Your task to perform on an android device: Add "alienware area 51" to the cart on newegg.com, then select checkout. Image 0: 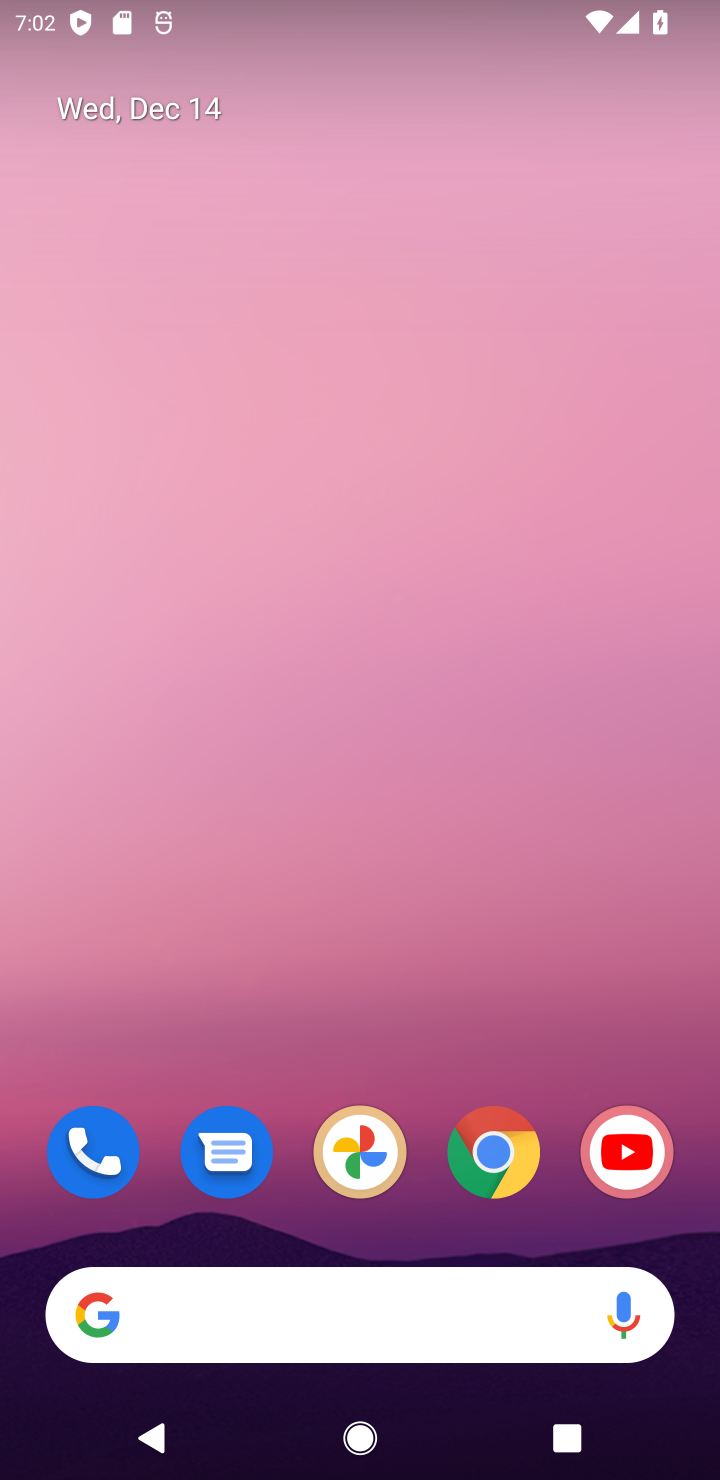
Step 0: click (495, 1151)
Your task to perform on an android device: Add "alienware area 51" to the cart on newegg.com, then select checkout. Image 1: 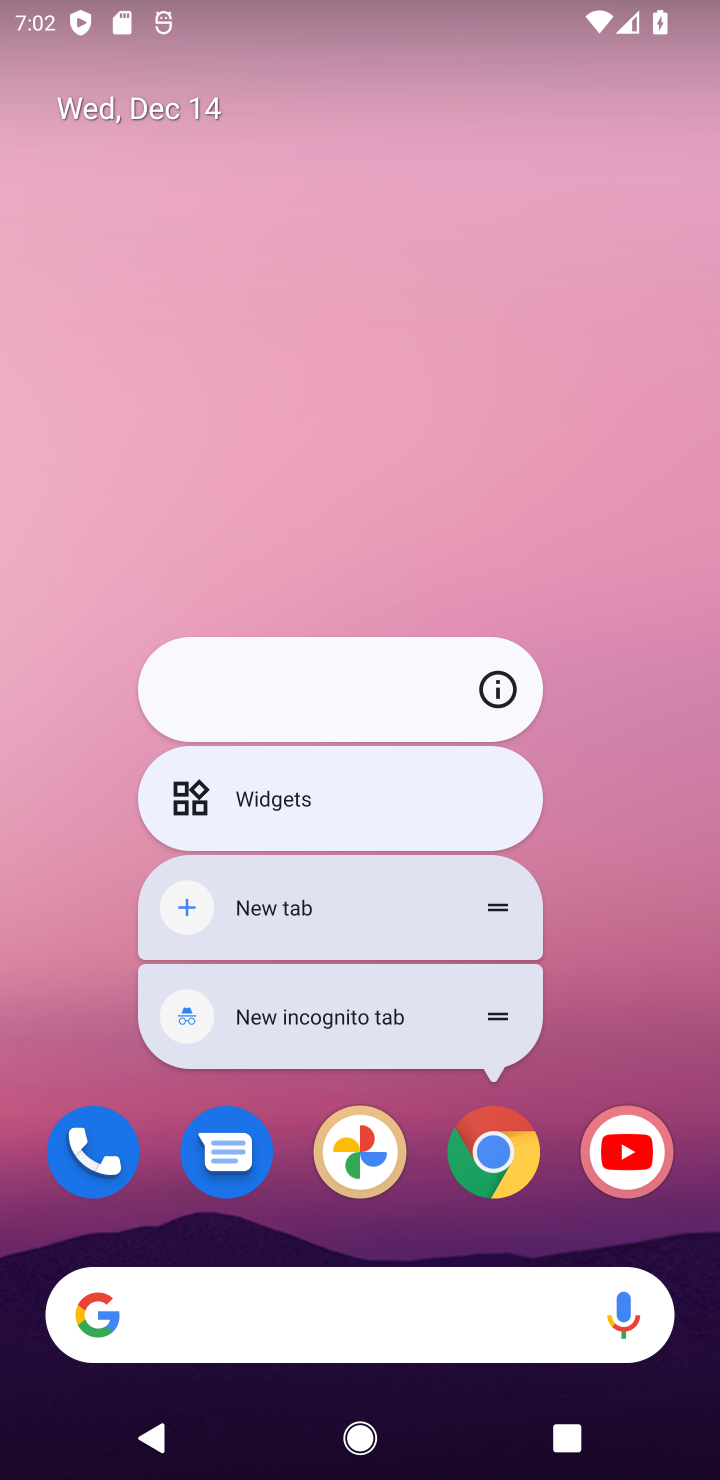
Step 1: click (495, 1151)
Your task to perform on an android device: Add "alienware area 51" to the cart on newegg.com, then select checkout. Image 2: 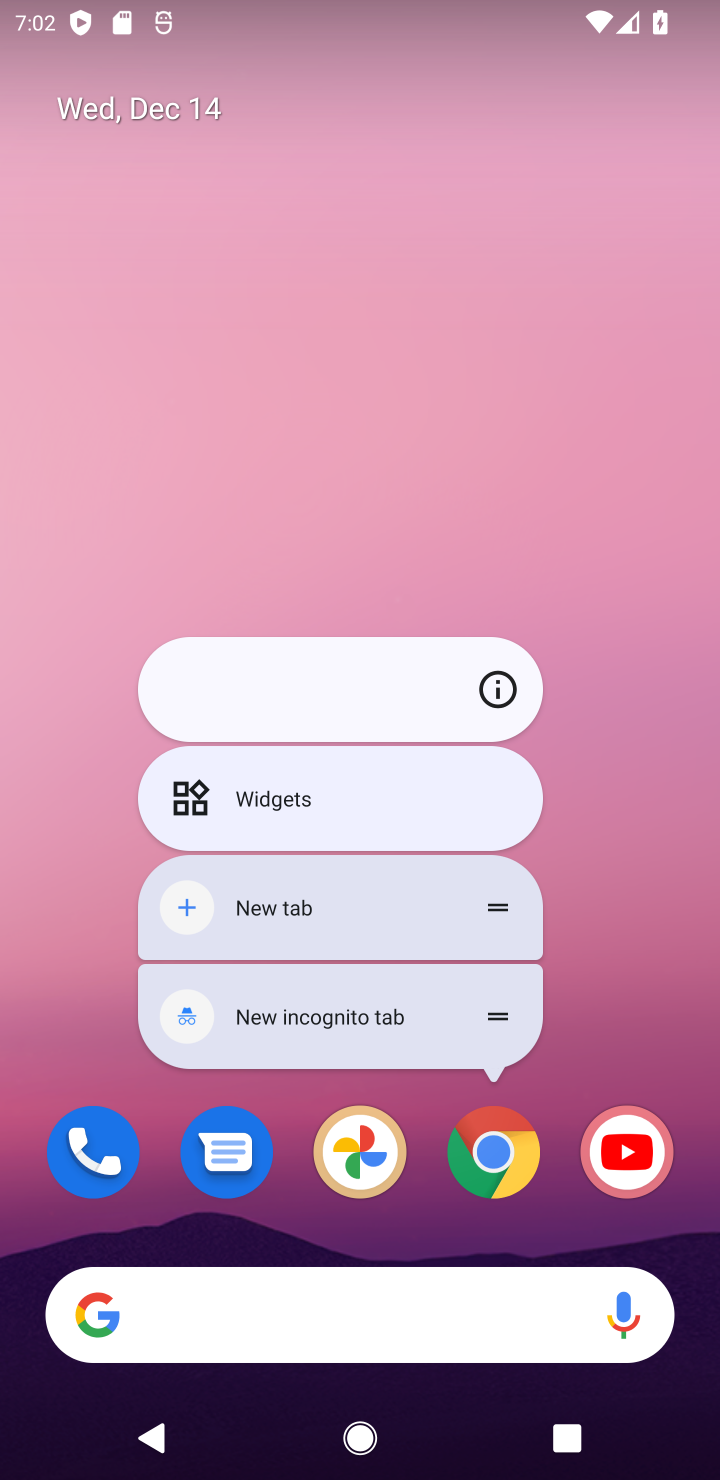
Step 2: click (582, 1077)
Your task to perform on an android device: Add "alienware area 51" to the cart on newegg.com, then select checkout. Image 3: 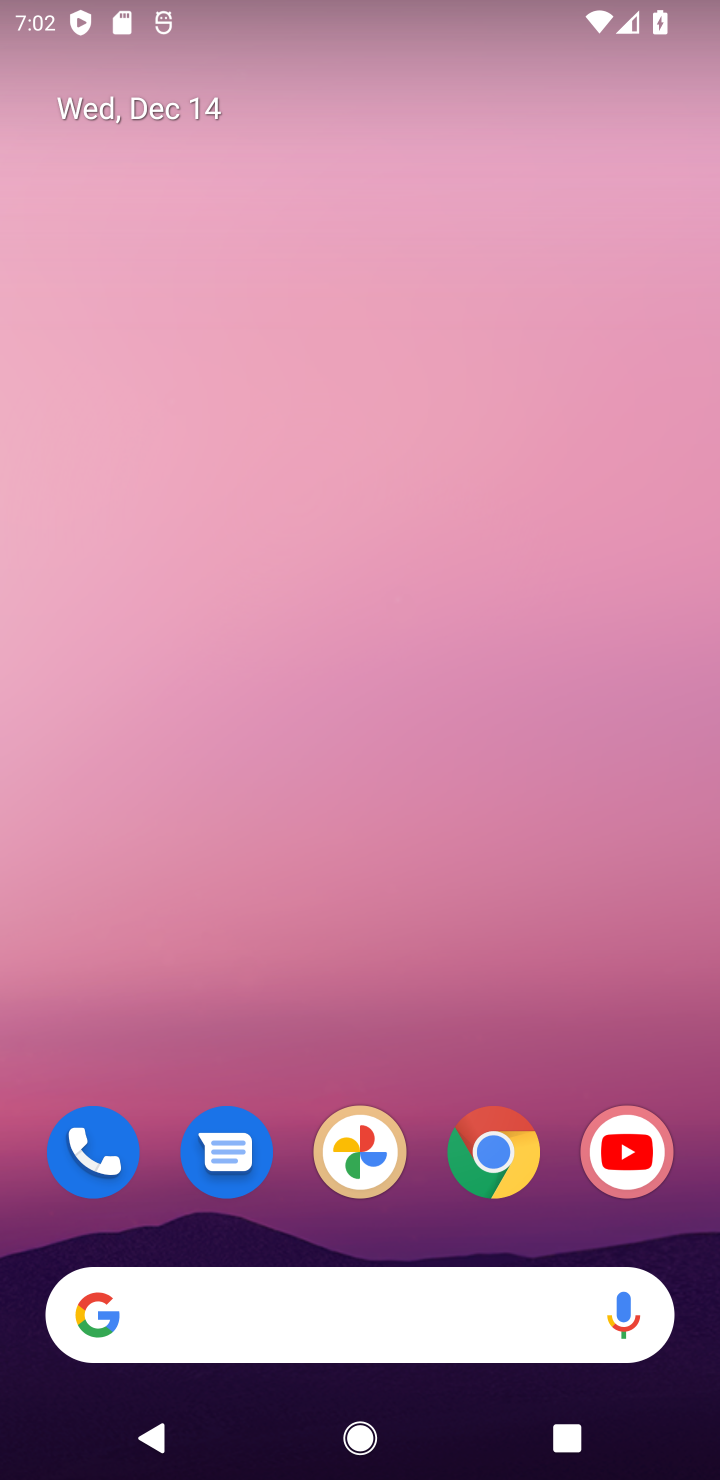
Step 3: click (505, 1150)
Your task to perform on an android device: Add "alienware area 51" to the cart on newegg.com, then select checkout. Image 4: 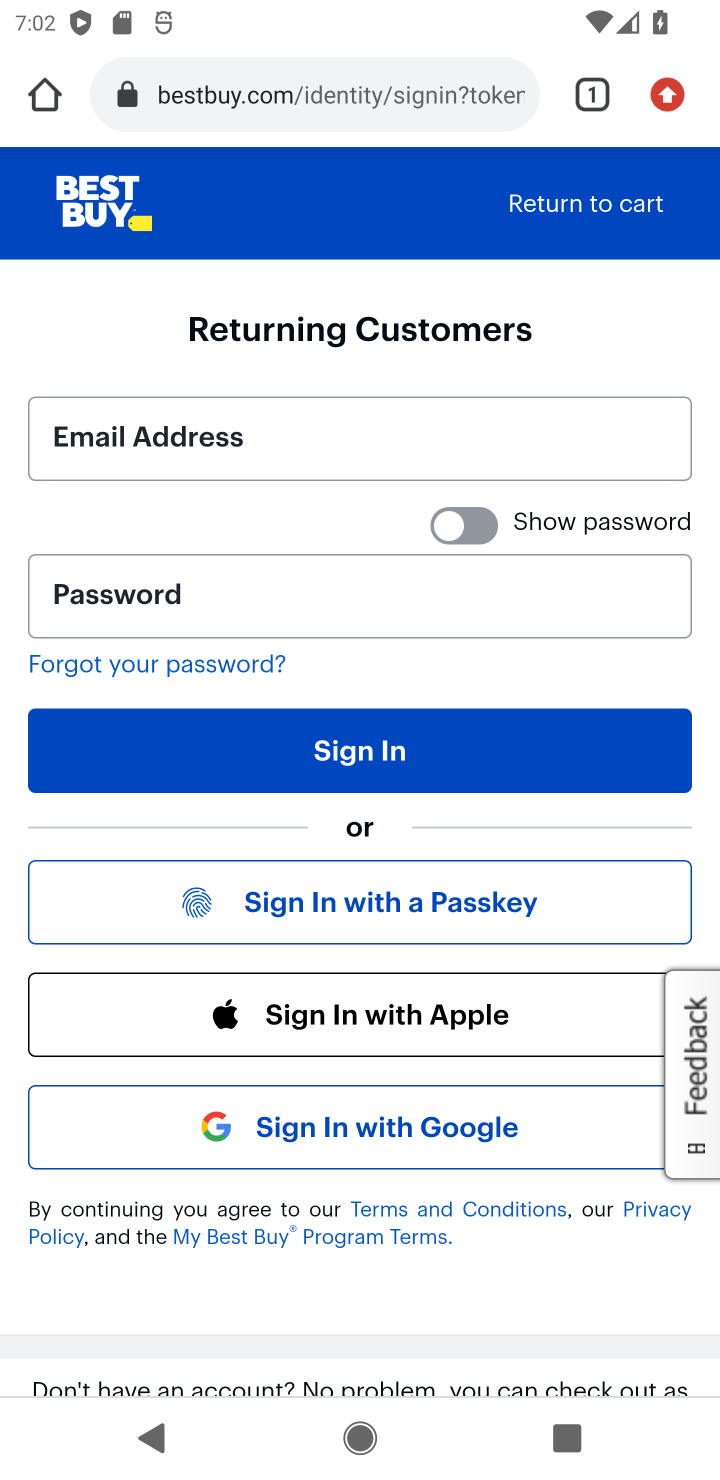
Step 4: click (304, 99)
Your task to perform on an android device: Add "alienware area 51" to the cart on newegg.com, then select checkout. Image 5: 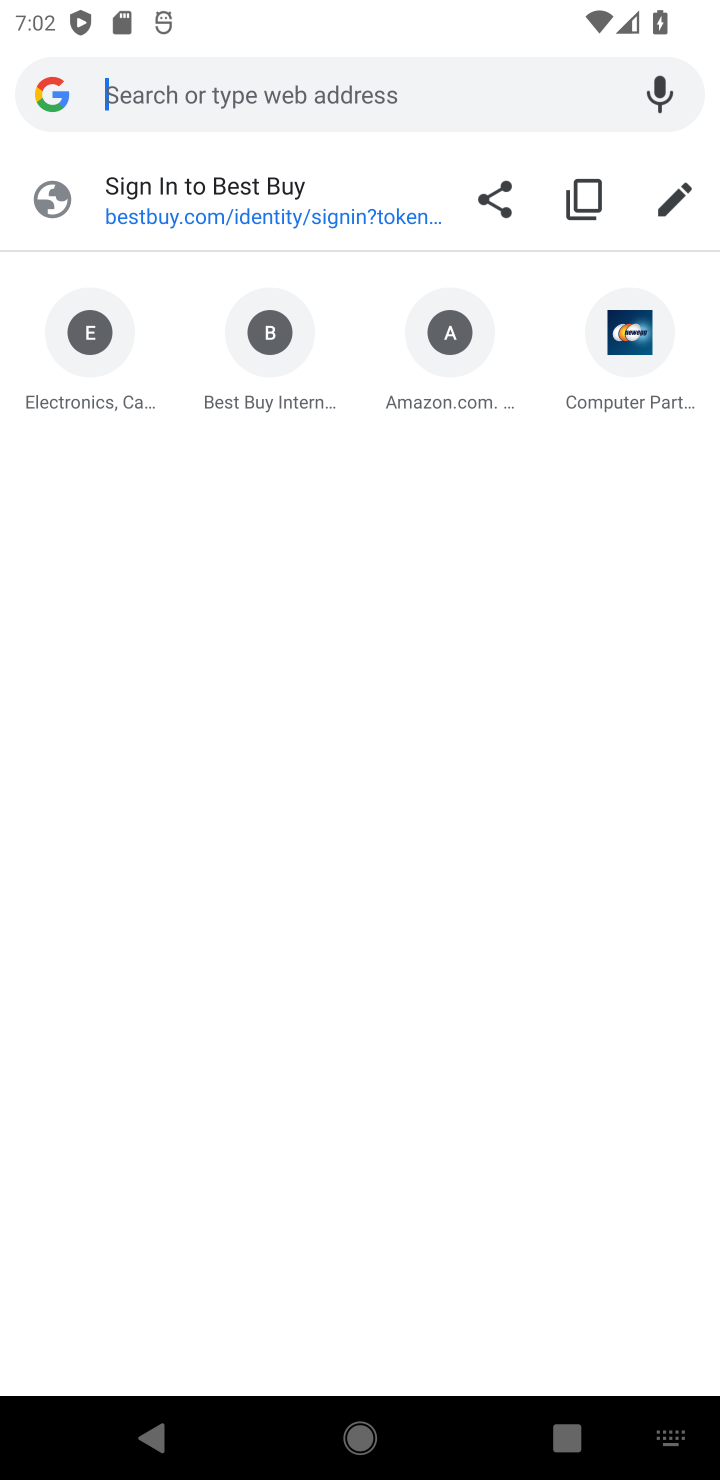
Step 5: click (615, 387)
Your task to perform on an android device: Add "alienware area 51" to the cart on newegg.com, then select checkout. Image 6: 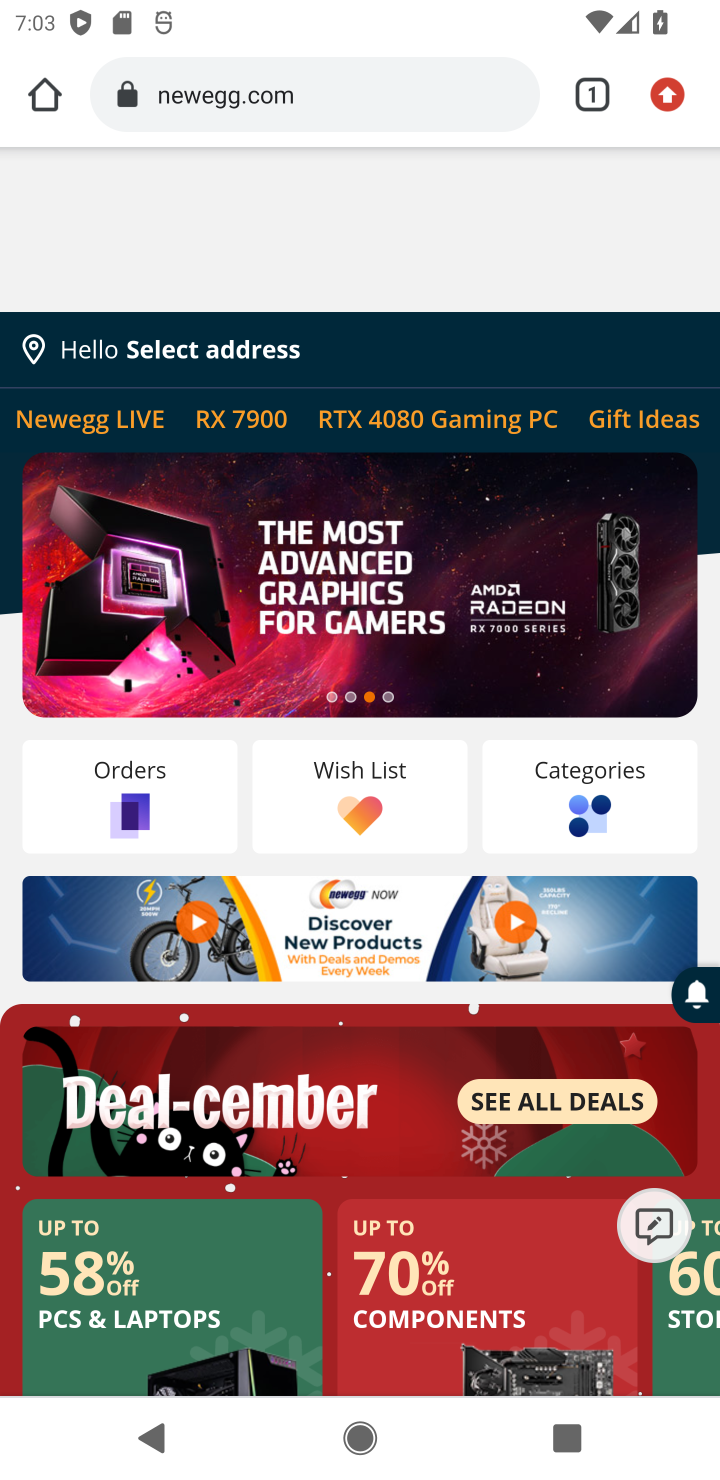
Step 6: click (155, 278)
Your task to perform on an android device: Add "alienware area 51" to the cart on newegg.com, then select checkout. Image 7: 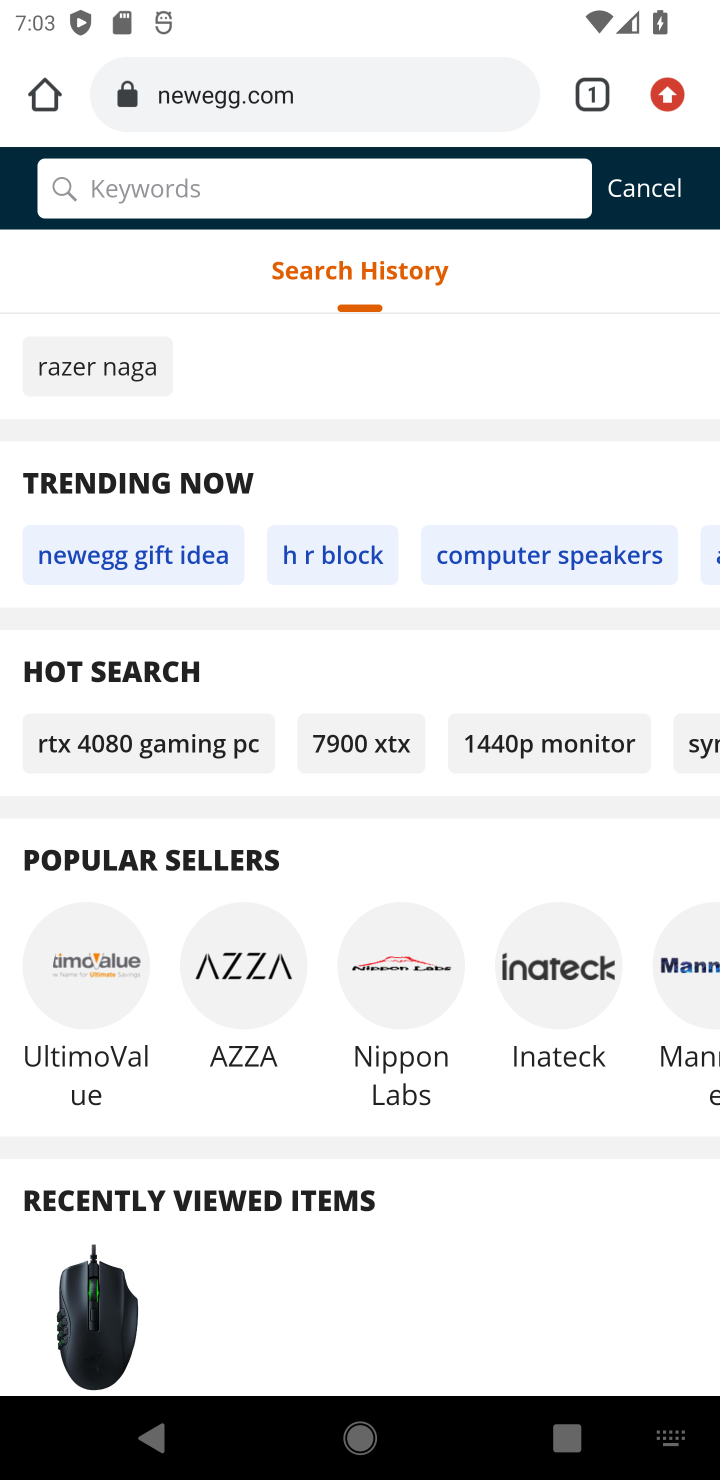
Step 7: type "alienware area 51"
Your task to perform on an android device: Add "alienware area 51" to the cart on newegg.com, then select checkout. Image 8: 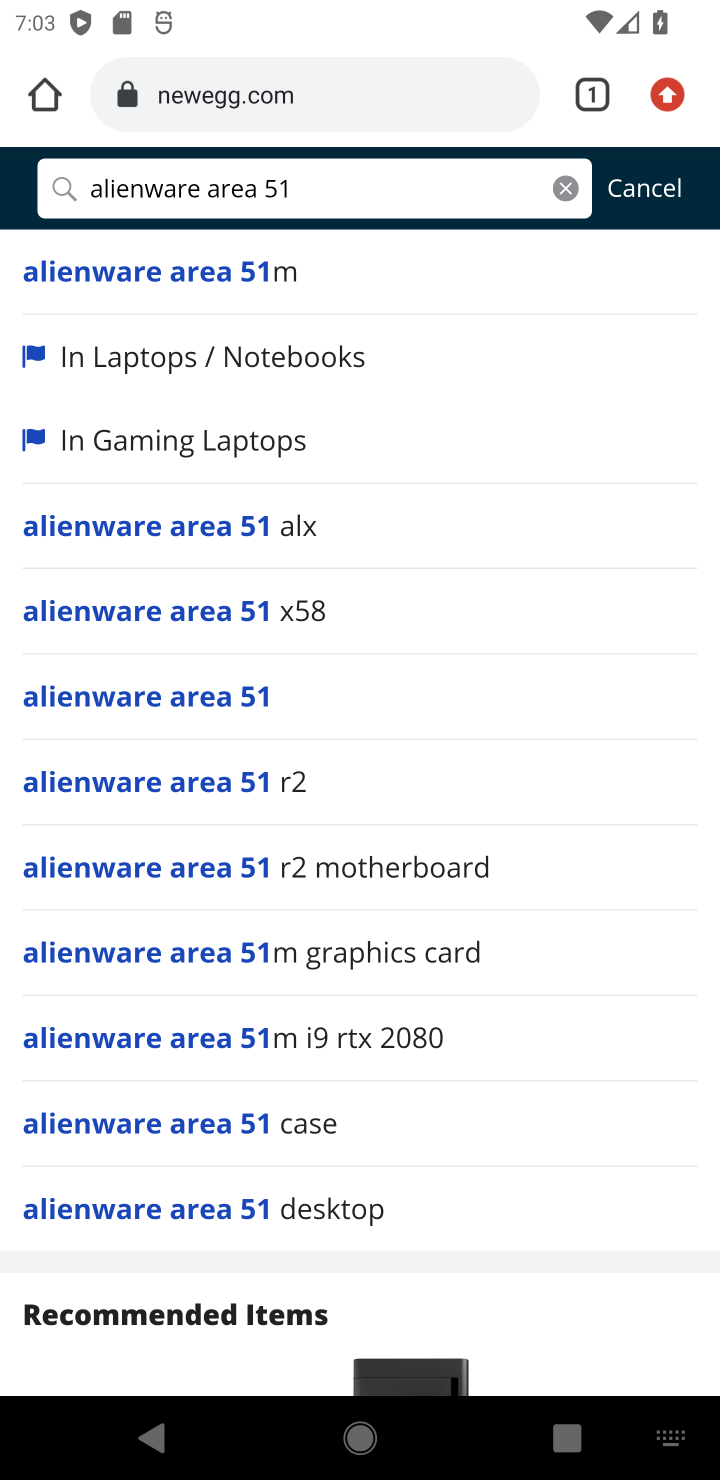
Step 8: click (158, 283)
Your task to perform on an android device: Add "alienware area 51" to the cart on newegg.com, then select checkout. Image 9: 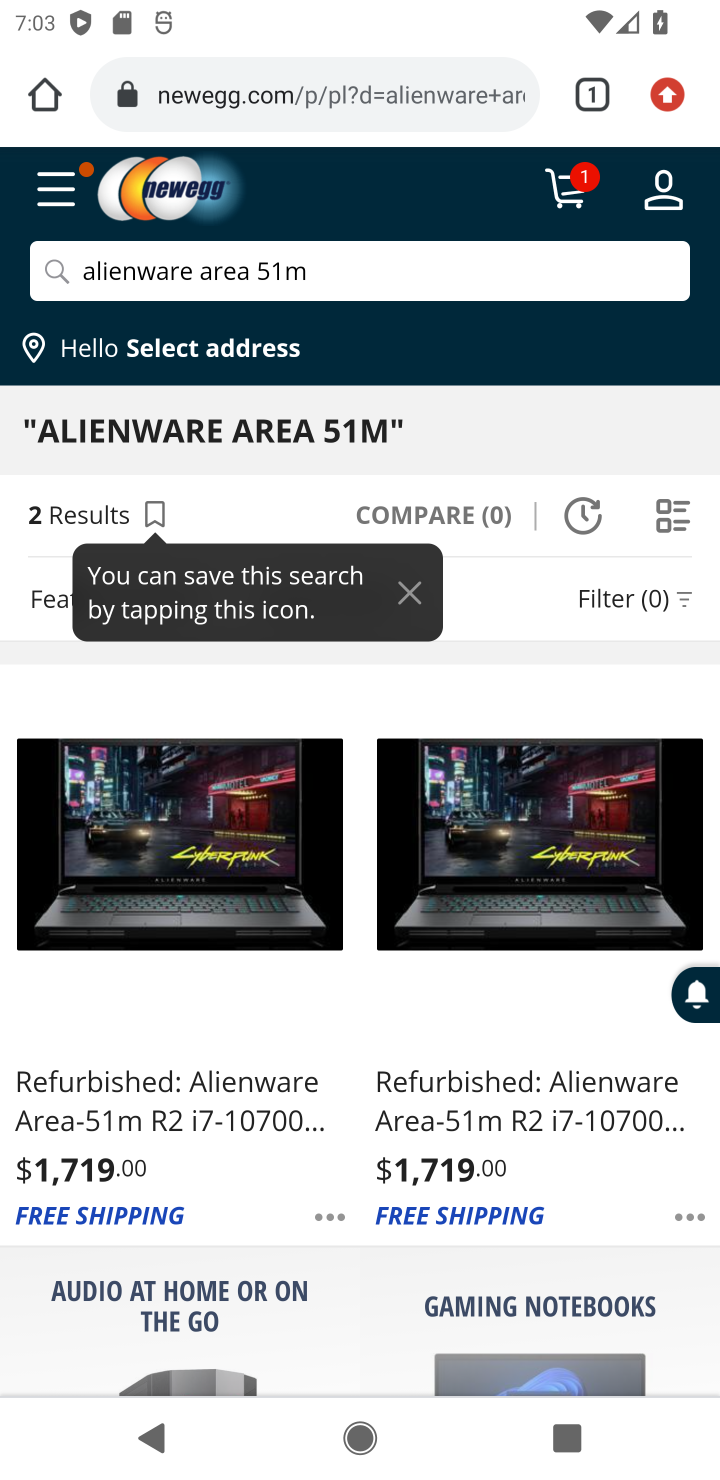
Step 9: click (177, 1124)
Your task to perform on an android device: Add "alienware area 51" to the cart on newegg.com, then select checkout. Image 10: 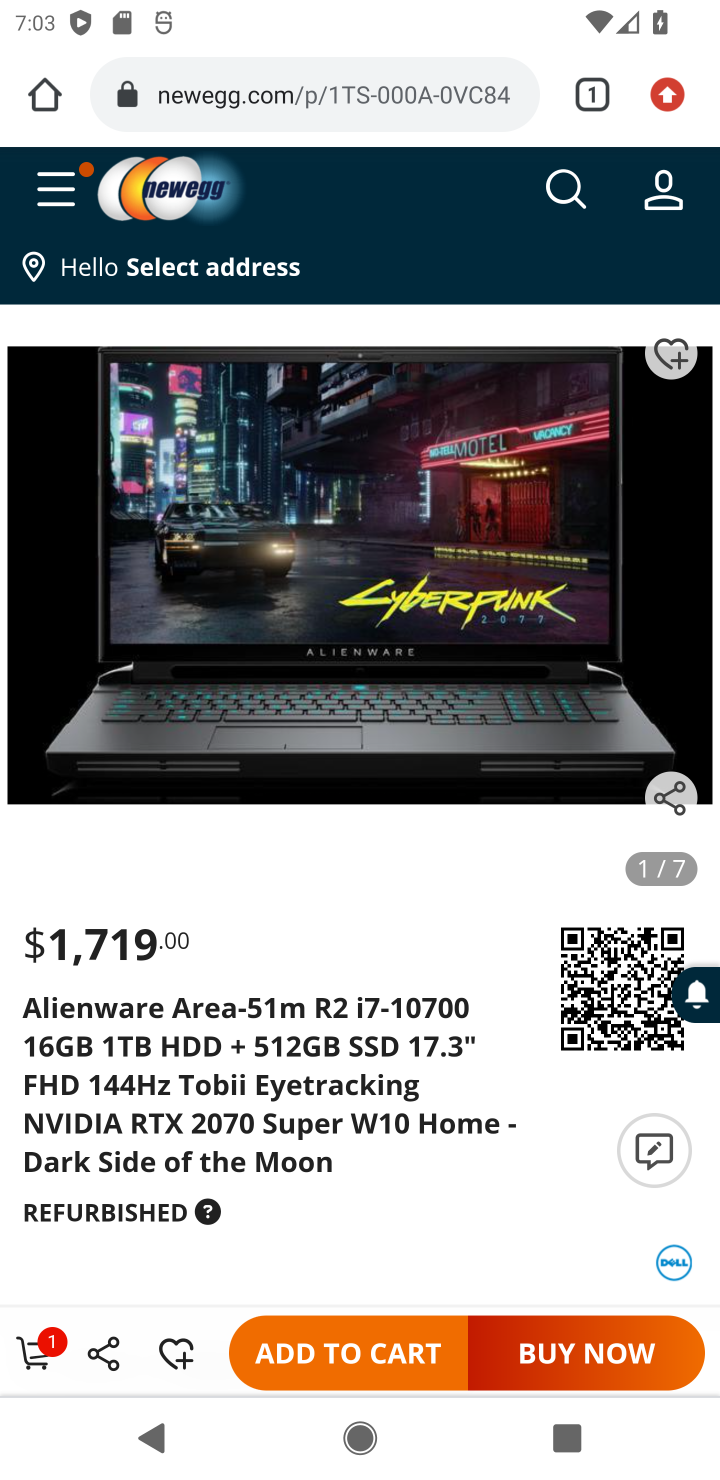
Step 10: click (355, 1355)
Your task to perform on an android device: Add "alienware area 51" to the cart on newegg.com, then select checkout. Image 11: 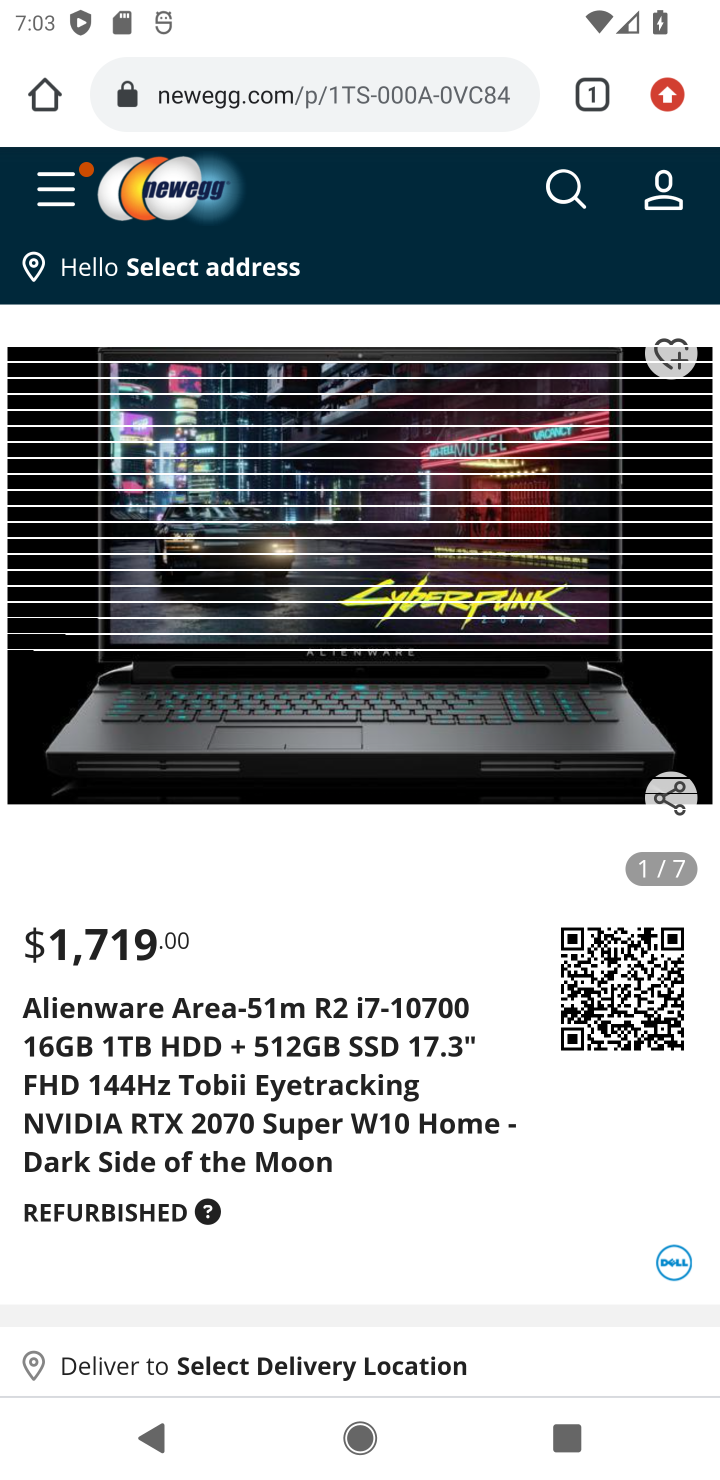
Step 11: click (323, 1355)
Your task to perform on an android device: Add "alienware area 51" to the cart on newegg.com, then select checkout. Image 12: 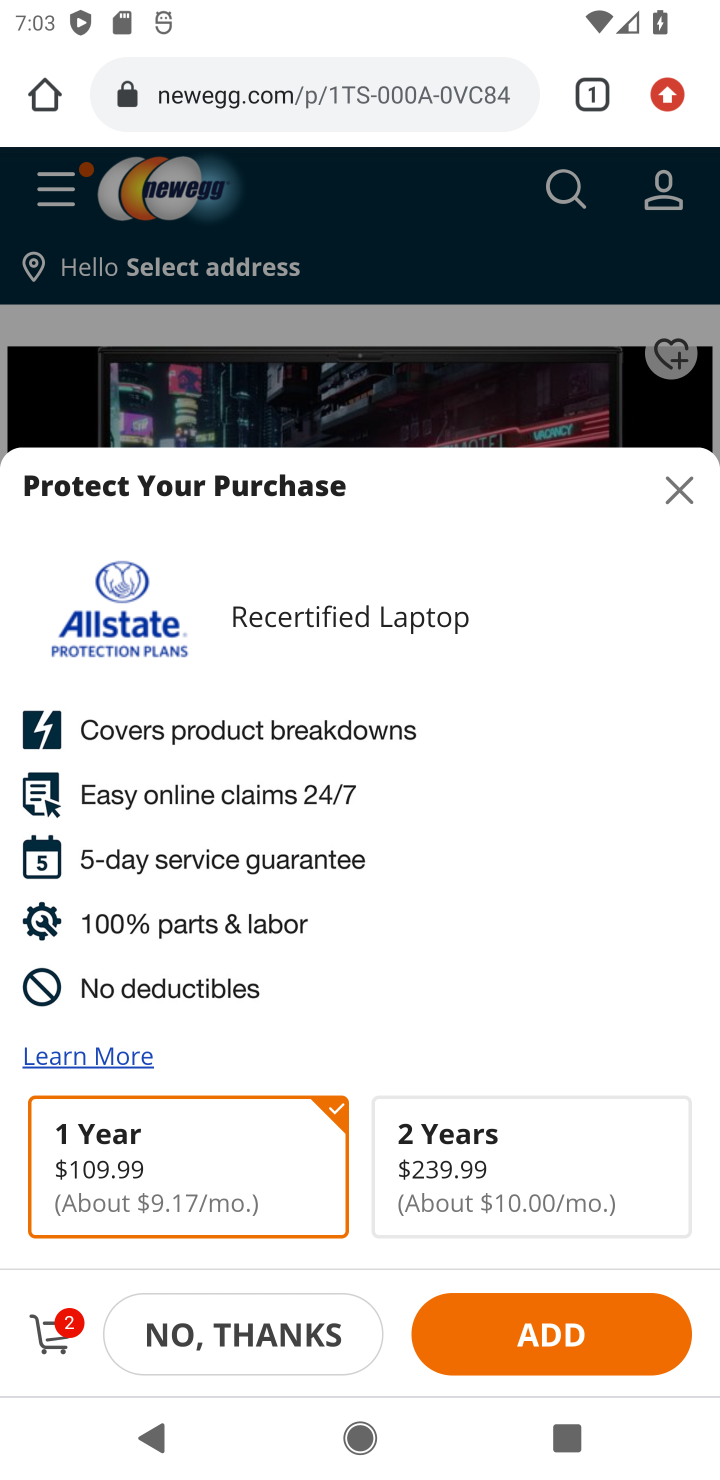
Step 12: click (39, 1335)
Your task to perform on an android device: Add "alienware area 51" to the cart on newegg.com, then select checkout. Image 13: 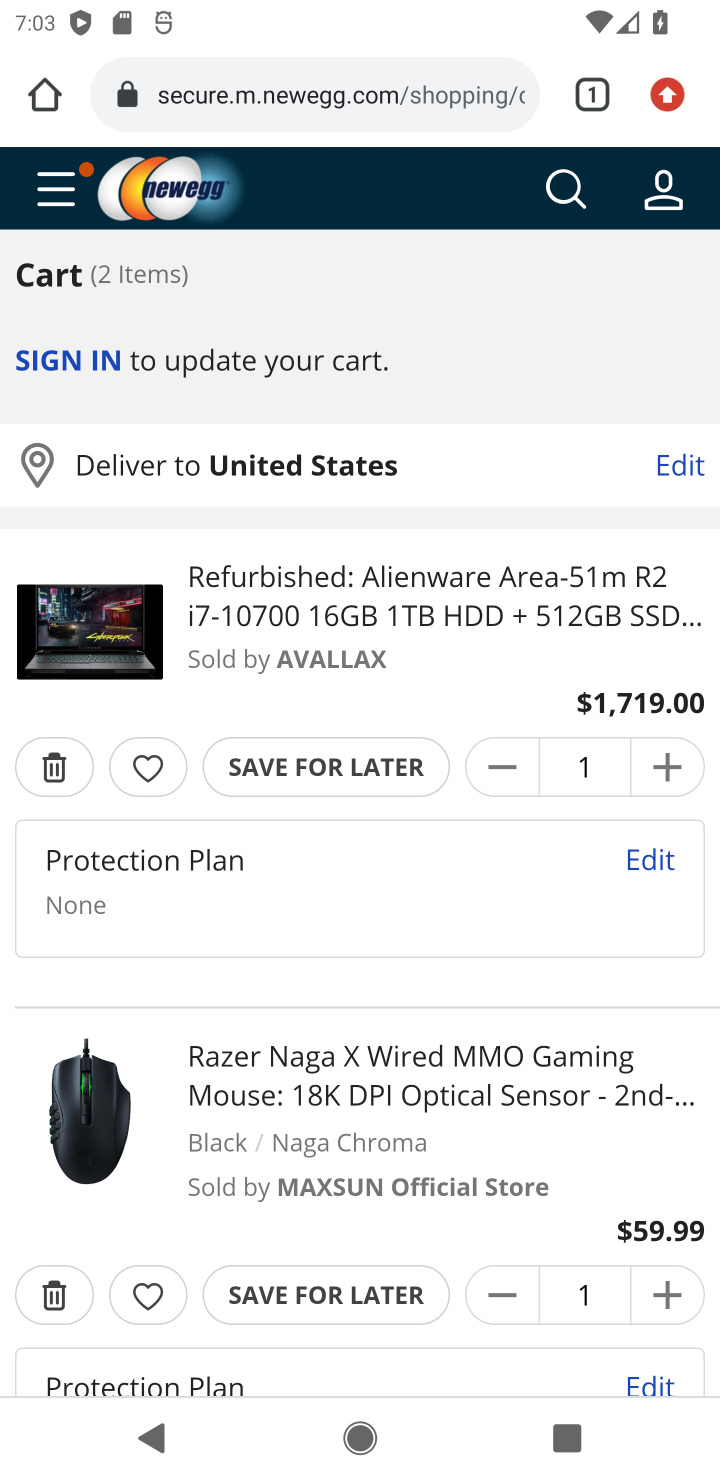
Step 13: click (254, 1249)
Your task to perform on an android device: Add "alienware area 51" to the cart on newegg.com, then select checkout. Image 14: 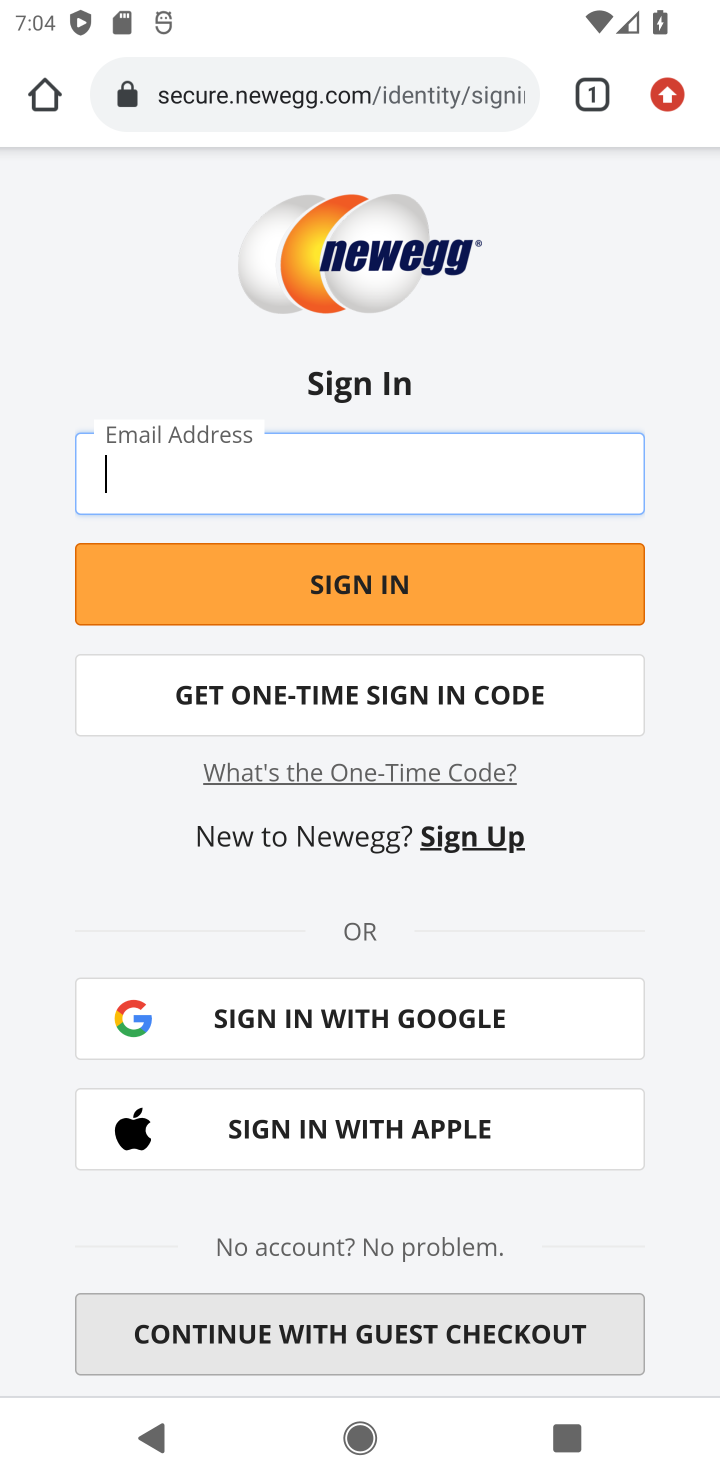
Step 14: task complete